Your task to perform on an android device: turn on bluetooth scan Image 0: 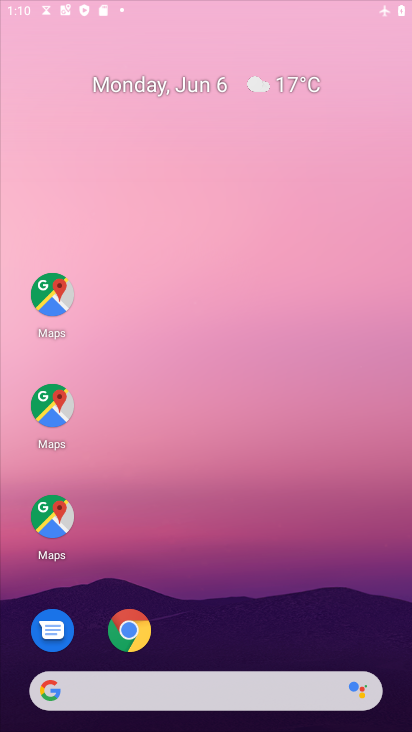
Step 0: click (295, 148)
Your task to perform on an android device: turn on bluetooth scan Image 1: 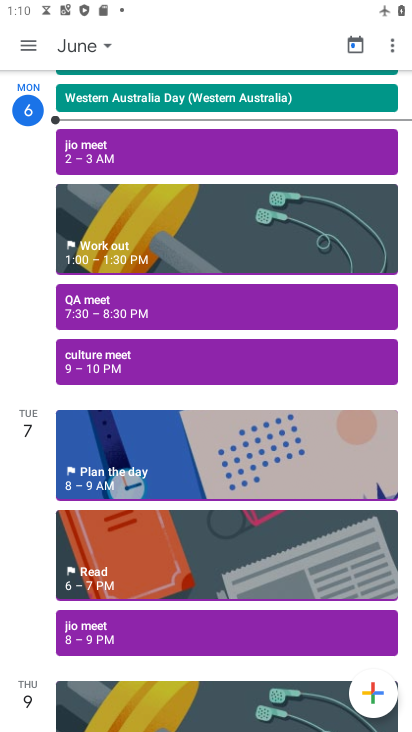
Step 1: press back button
Your task to perform on an android device: turn on bluetooth scan Image 2: 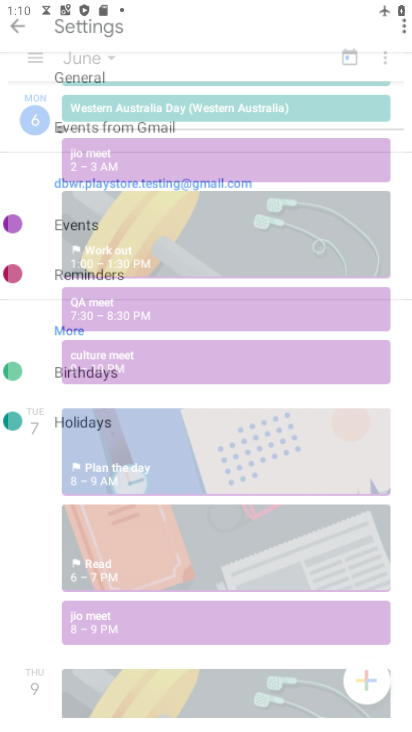
Step 2: press back button
Your task to perform on an android device: turn on bluetooth scan Image 3: 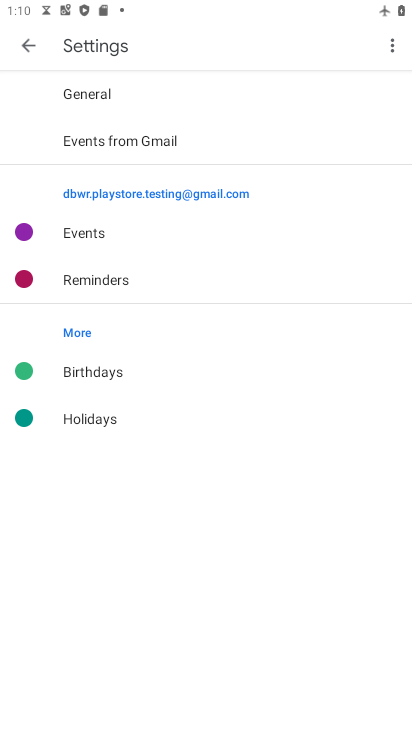
Step 3: press back button
Your task to perform on an android device: turn on bluetooth scan Image 4: 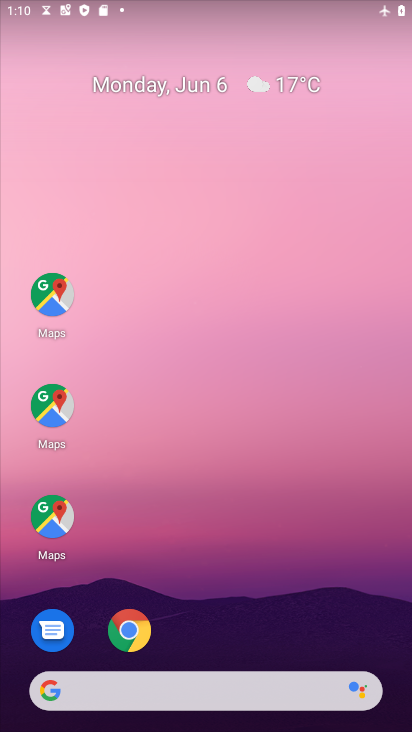
Step 4: drag from (190, 590) to (190, 197)
Your task to perform on an android device: turn on bluetooth scan Image 5: 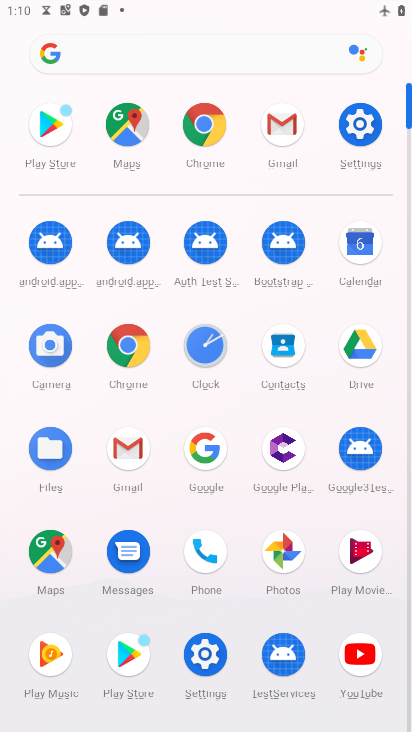
Step 5: drag from (222, 555) to (345, 62)
Your task to perform on an android device: turn on bluetooth scan Image 6: 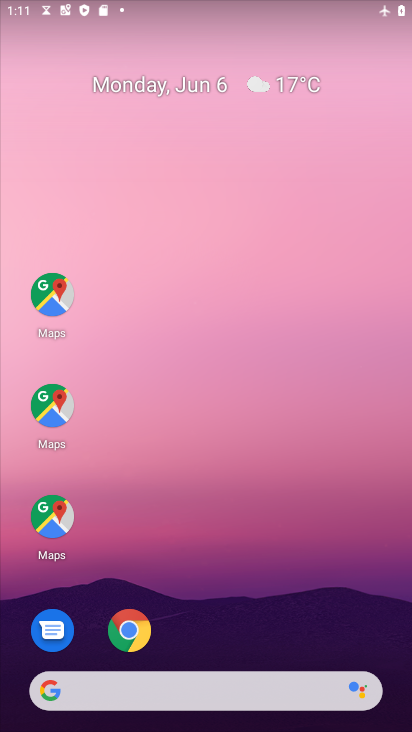
Step 6: drag from (185, 636) to (149, 218)
Your task to perform on an android device: turn on bluetooth scan Image 7: 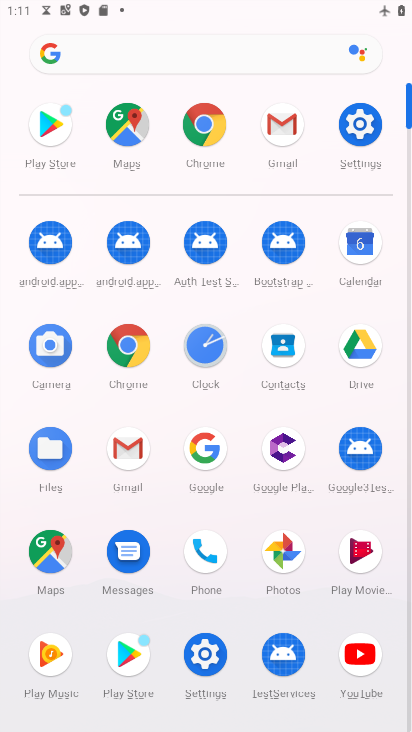
Step 7: click (358, 122)
Your task to perform on an android device: turn on bluetooth scan Image 8: 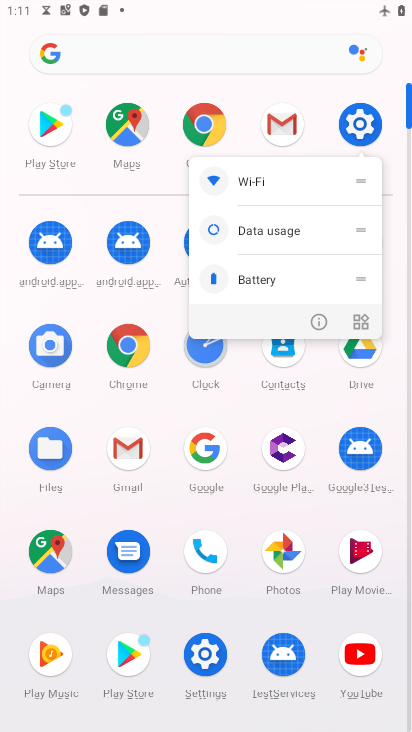
Step 8: click (358, 122)
Your task to perform on an android device: turn on bluetooth scan Image 9: 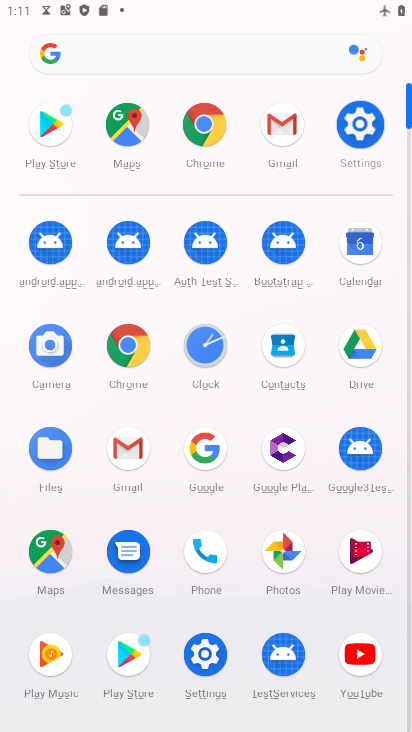
Step 9: click (361, 117)
Your task to perform on an android device: turn on bluetooth scan Image 10: 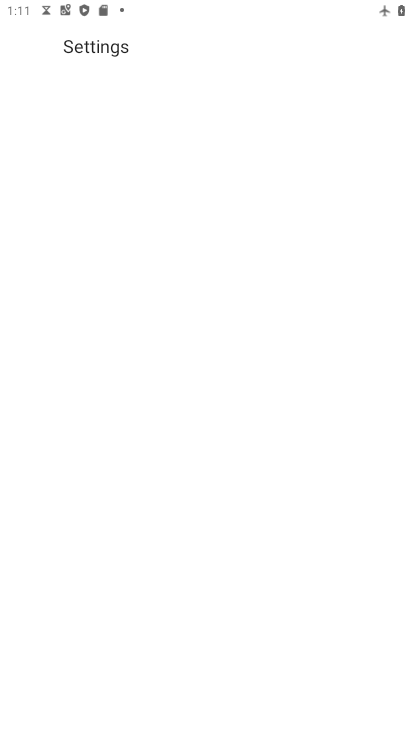
Step 10: click (365, 115)
Your task to perform on an android device: turn on bluetooth scan Image 11: 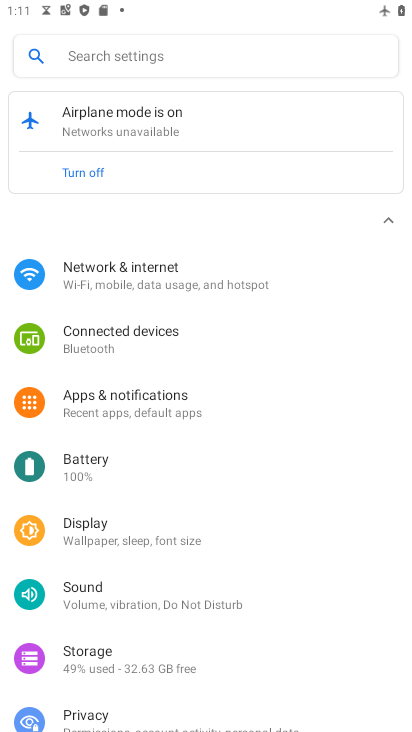
Step 11: drag from (148, 517) to (117, 261)
Your task to perform on an android device: turn on bluetooth scan Image 12: 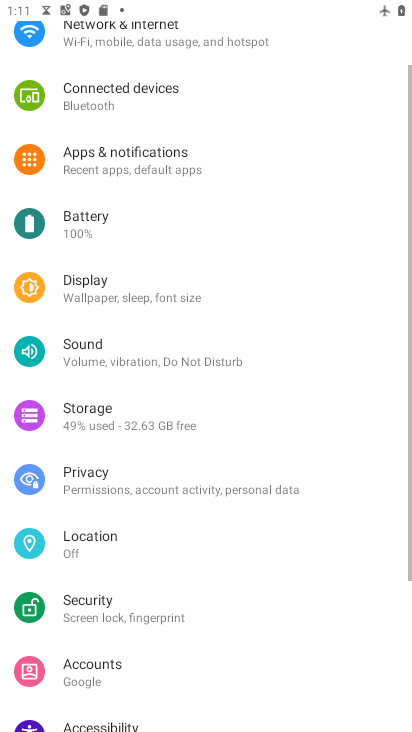
Step 12: drag from (83, 499) to (121, 224)
Your task to perform on an android device: turn on bluetooth scan Image 13: 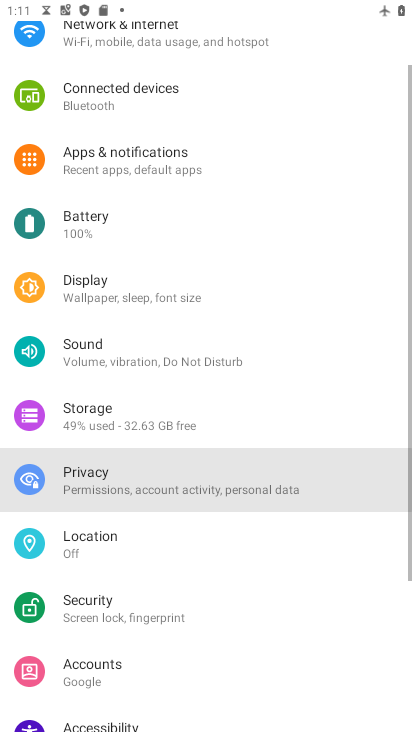
Step 13: drag from (124, 438) to (115, 233)
Your task to perform on an android device: turn on bluetooth scan Image 14: 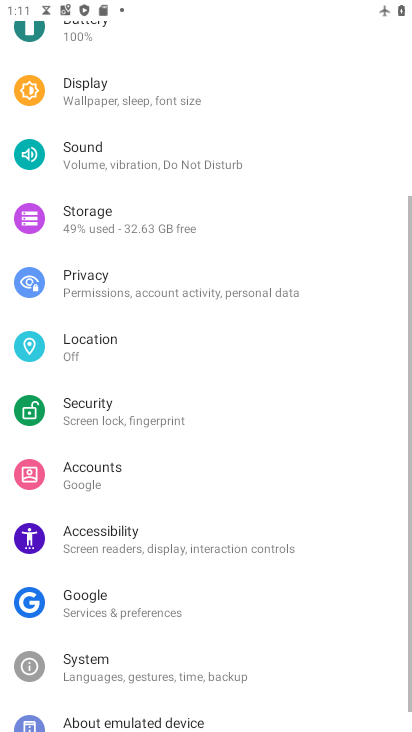
Step 14: drag from (154, 467) to (176, 217)
Your task to perform on an android device: turn on bluetooth scan Image 15: 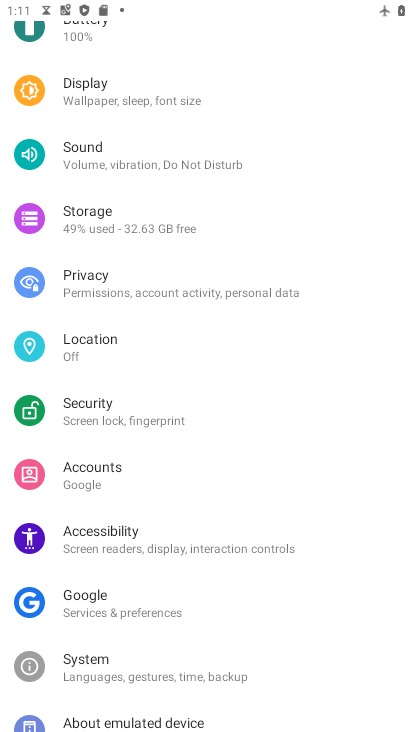
Step 15: click (73, 342)
Your task to perform on an android device: turn on bluetooth scan Image 16: 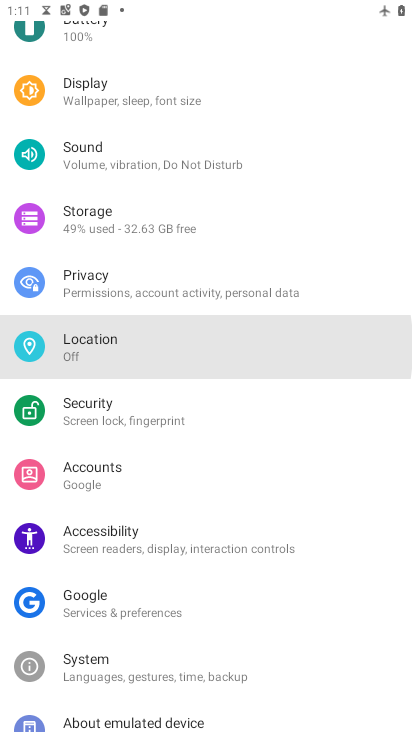
Step 16: click (76, 339)
Your task to perform on an android device: turn on bluetooth scan Image 17: 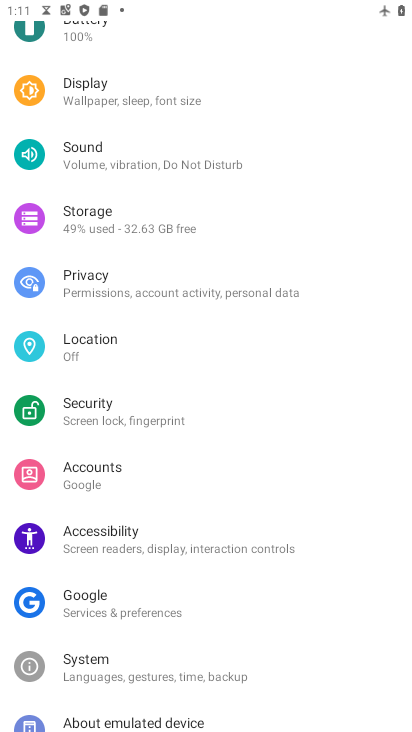
Step 17: click (76, 340)
Your task to perform on an android device: turn on bluetooth scan Image 18: 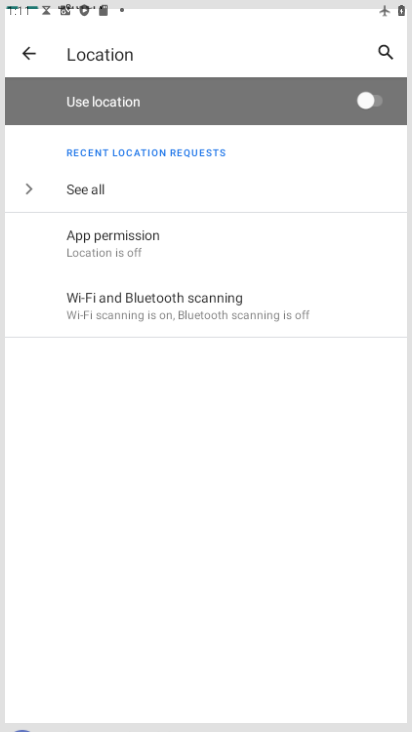
Step 18: click (76, 340)
Your task to perform on an android device: turn on bluetooth scan Image 19: 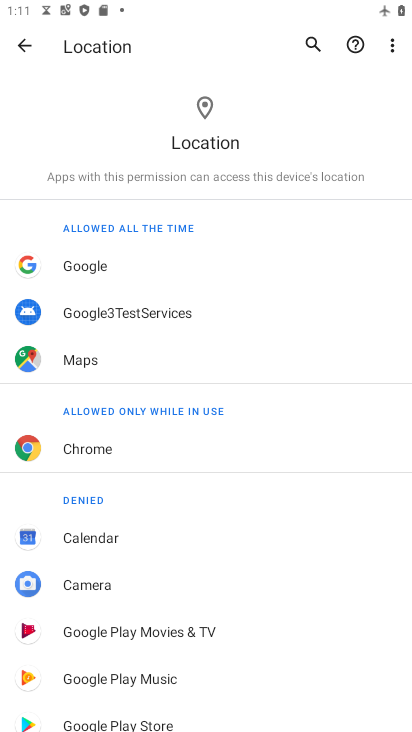
Step 19: click (24, 45)
Your task to perform on an android device: turn on bluetooth scan Image 20: 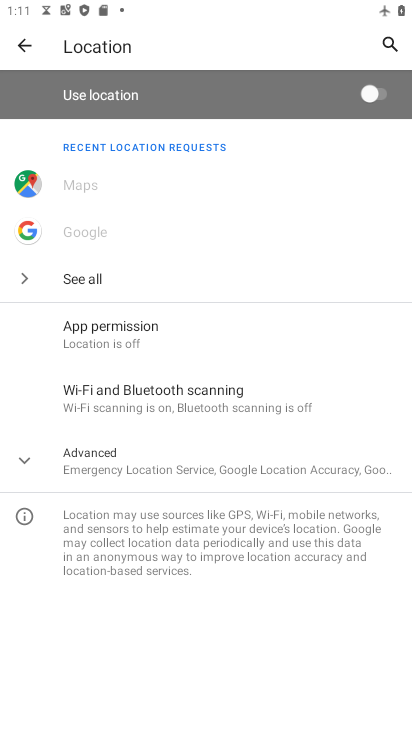
Step 20: click (147, 392)
Your task to perform on an android device: turn on bluetooth scan Image 21: 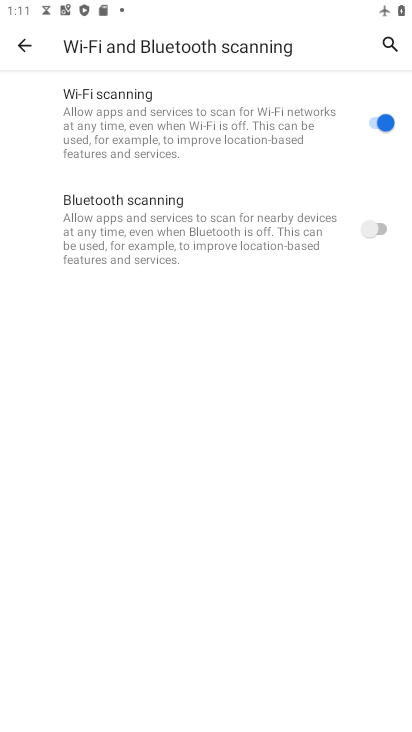
Step 21: click (369, 233)
Your task to perform on an android device: turn on bluetooth scan Image 22: 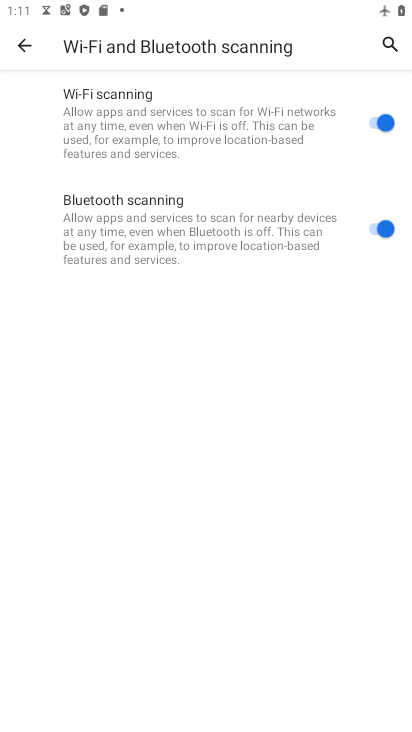
Step 22: task complete